Your task to perform on an android device: Is it going to rain today? Image 0: 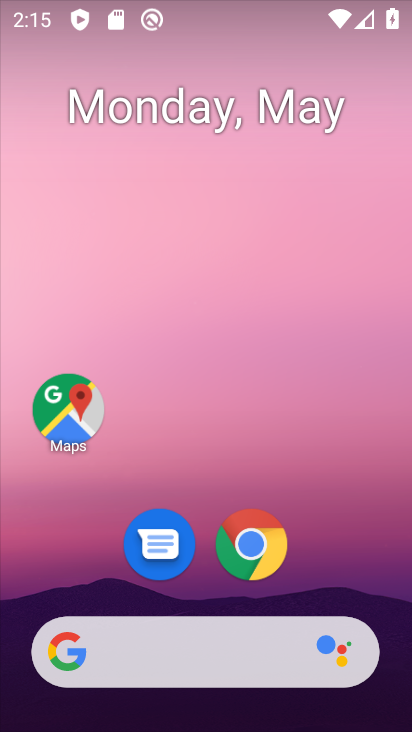
Step 0: drag from (203, 590) to (247, 132)
Your task to perform on an android device: Is it going to rain today? Image 1: 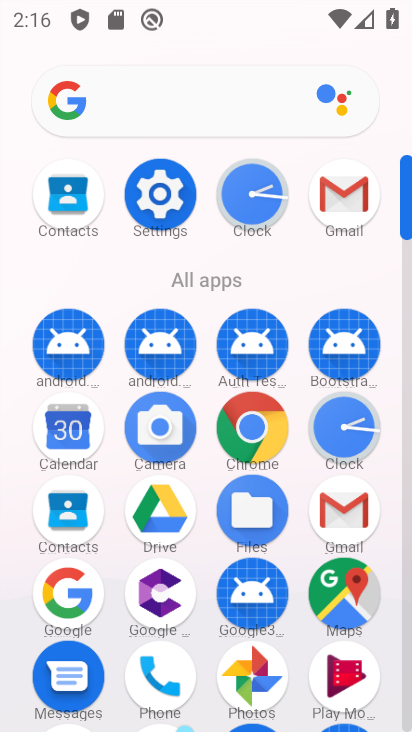
Step 1: click (70, 568)
Your task to perform on an android device: Is it going to rain today? Image 2: 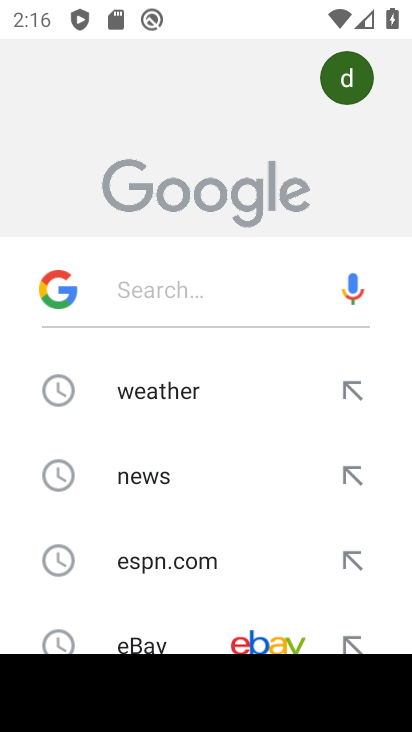
Step 2: click (169, 380)
Your task to perform on an android device: Is it going to rain today? Image 3: 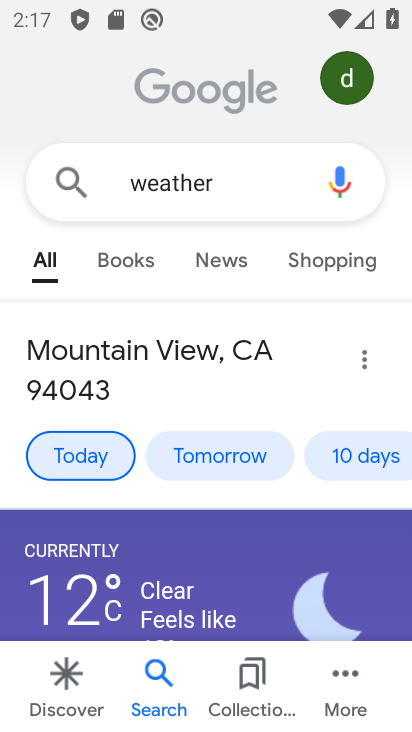
Step 3: task complete